Your task to perform on an android device: Search for Italian restaurants on Maps Image 0: 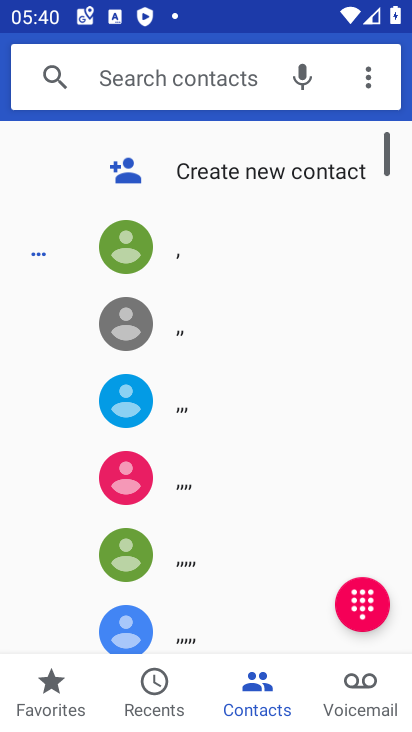
Step 0: press home button
Your task to perform on an android device: Search for Italian restaurants on Maps Image 1: 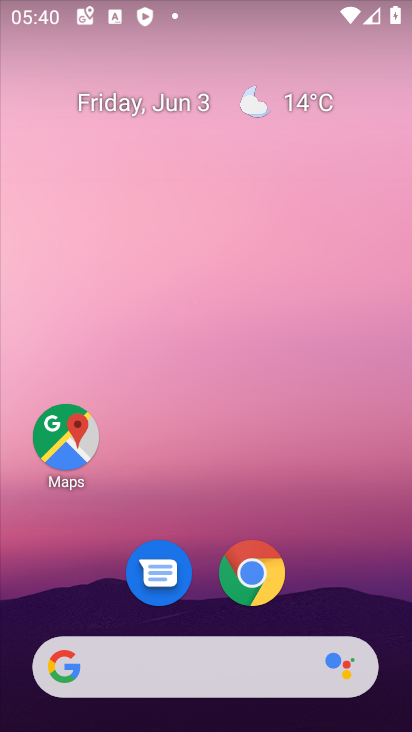
Step 1: drag from (264, 711) to (219, 67)
Your task to perform on an android device: Search for Italian restaurants on Maps Image 2: 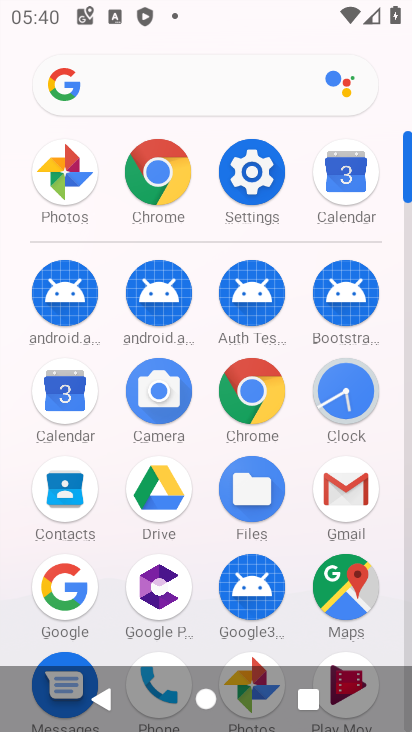
Step 2: click (347, 582)
Your task to perform on an android device: Search for Italian restaurants on Maps Image 3: 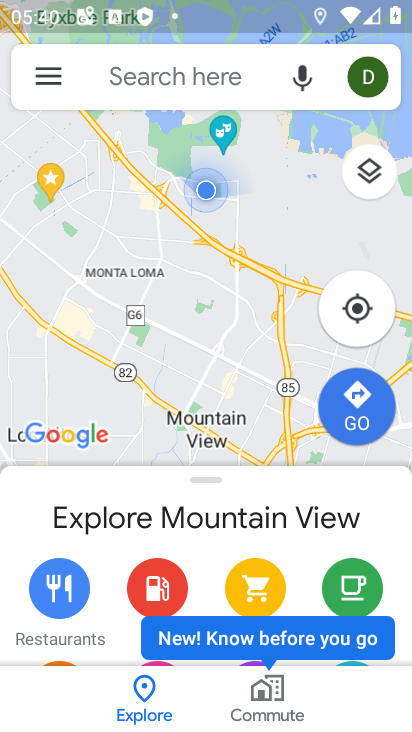
Step 3: click (172, 65)
Your task to perform on an android device: Search for Italian restaurants on Maps Image 4: 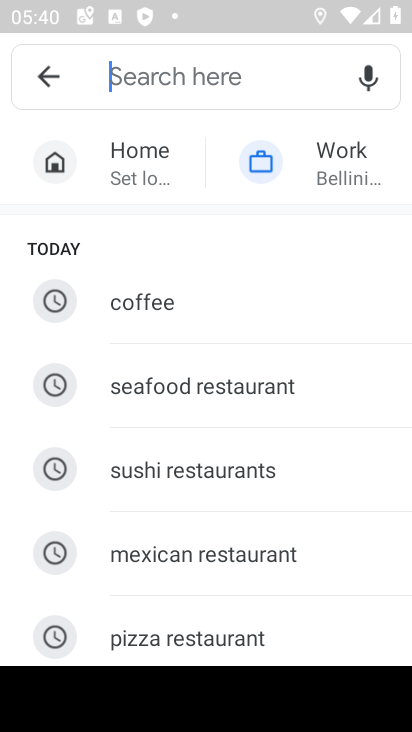
Step 4: drag from (245, 556) to (250, 87)
Your task to perform on an android device: Search for Italian restaurants on Maps Image 5: 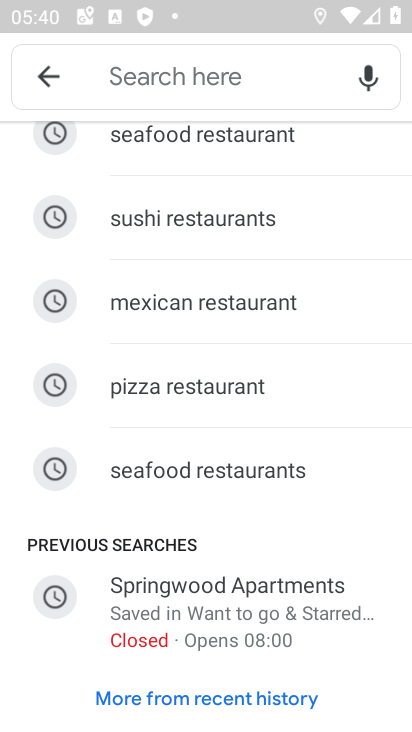
Step 5: drag from (265, 225) to (325, 718)
Your task to perform on an android device: Search for Italian restaurants on Maps Image 6: 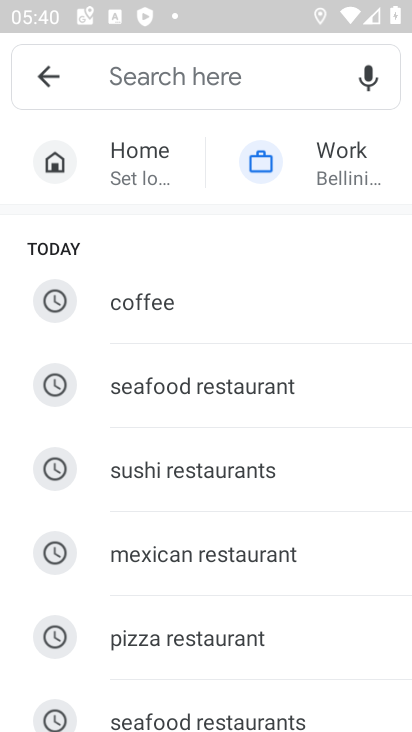
Step 6: click (189, 81)
Your task to perform on an android device: Search for Italian restaurants on Maps Image 7: 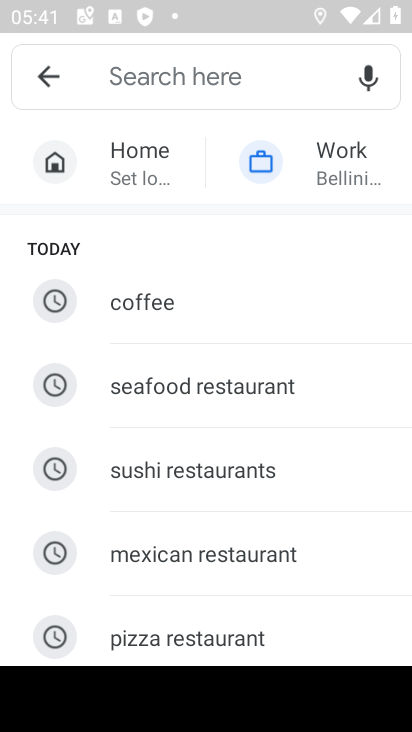
Step 7: type "italian restaurant"
Your task to perform on an android device: Search for Italian restaurants on Maps Image 8: 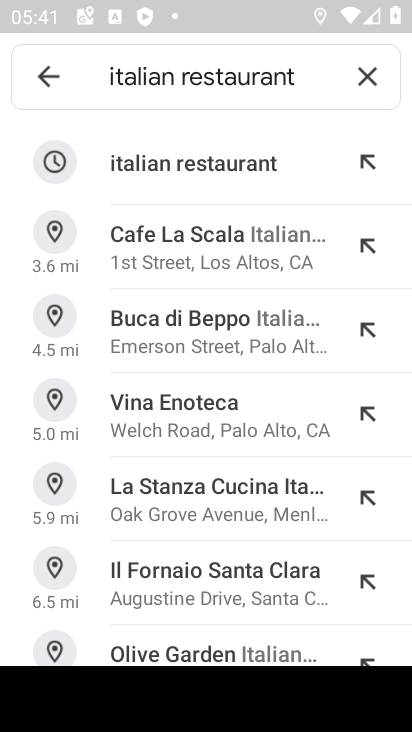
Step 8: click (156, 167)
Your task to perform on an android device: Search for Italian restaurants on Maps Image 9: 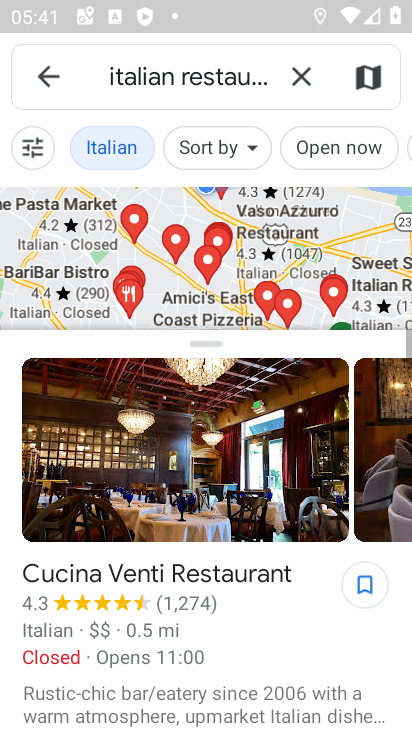
Step 9: task complete